Your task to perform on an android device: Go to location settings Image 0: 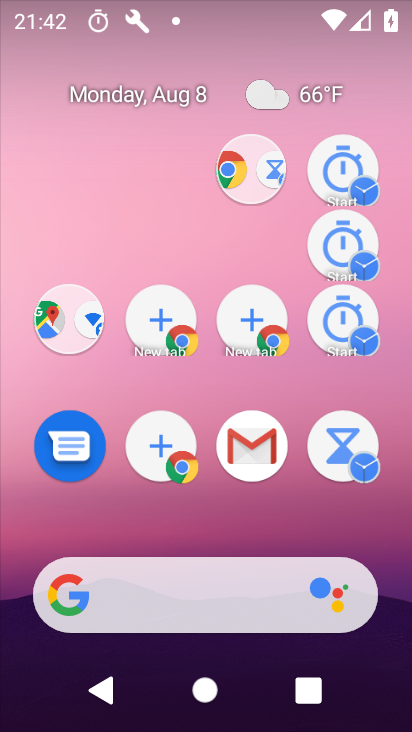
Step 0: click (236, 300)
Your task to perform on an android device: Go to location settings Image 1: 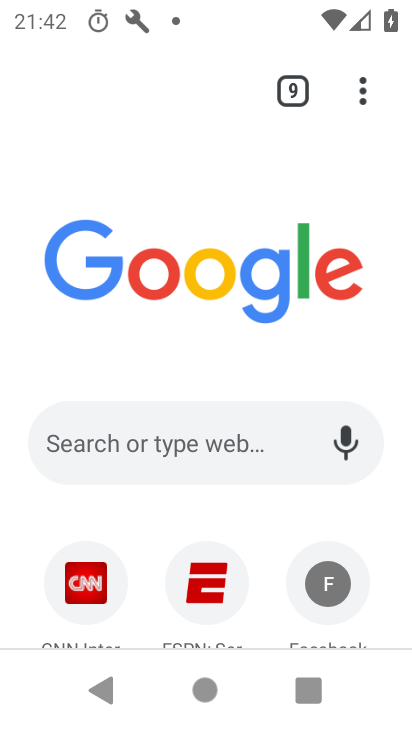
Step 1: press back button
Your task to perform on an android device: Go to location settings Image 2: 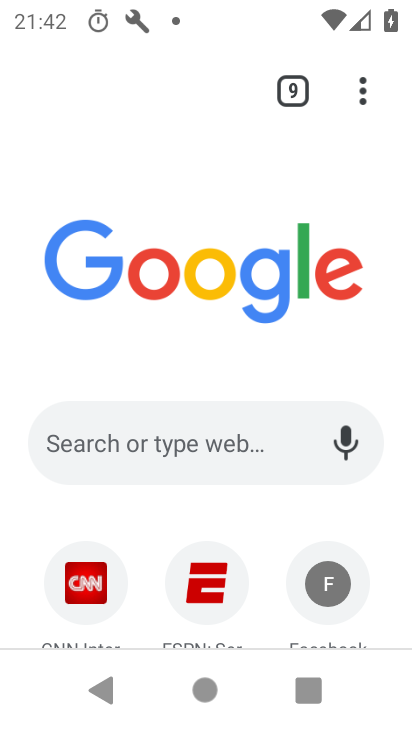
Step 2: press back button
Your task to perform on an android device: Go to location settings Image 3: 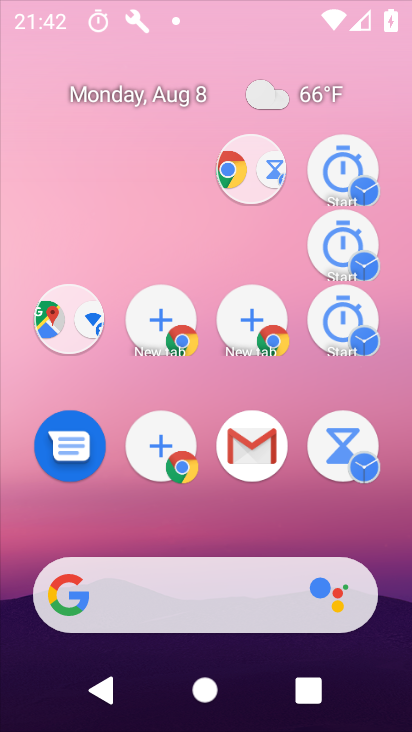
Step 3: press back button
Your task to perform on an android device: Go to location settings Image 4: 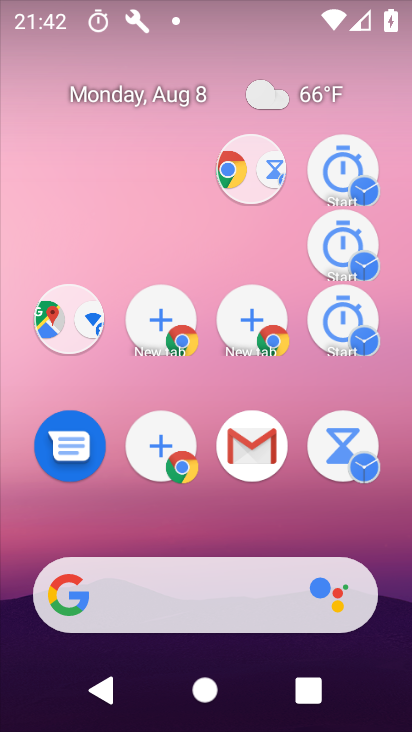
Step 4: drag from (142, 283) to (138, 246)
Your task to perform on an android device: Go to location settings Image 5: 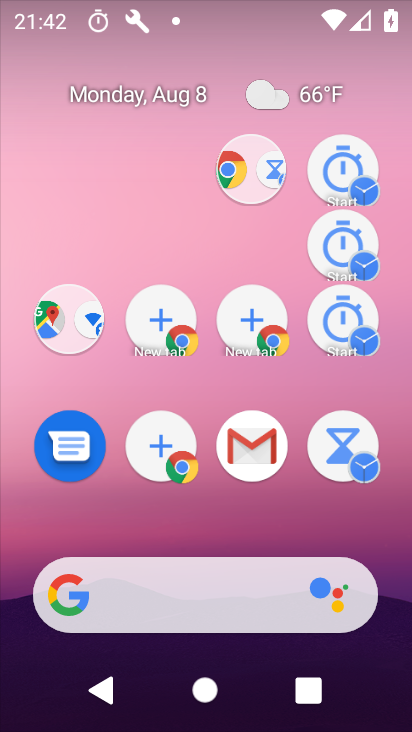
Step 5: drag from (249, 539) to (187, 32)
Your task to perform on an android device: Go to location settings Image 6: 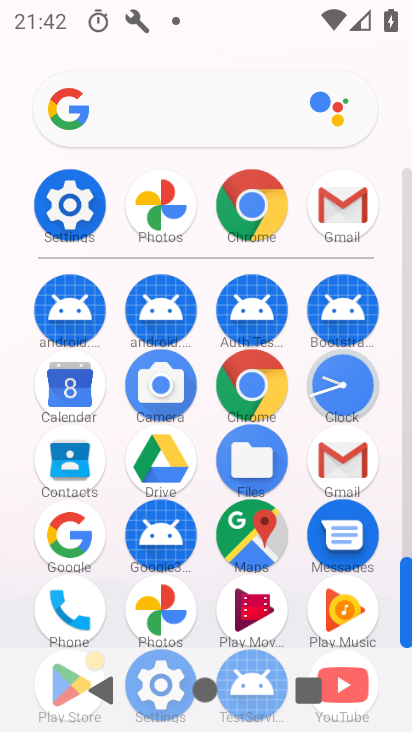
Step 6: click (82, 208)
Your task to perform on an android device: Go to location settings Image 7: 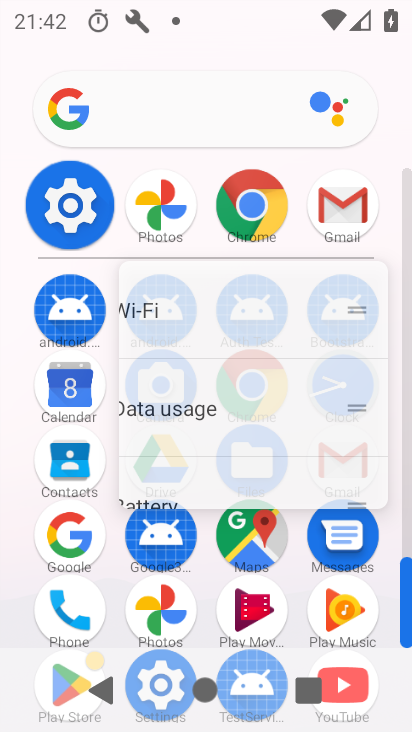
Step 7: click (81, 207)
Your task to perform on an android device: Go to location settings Image 8: 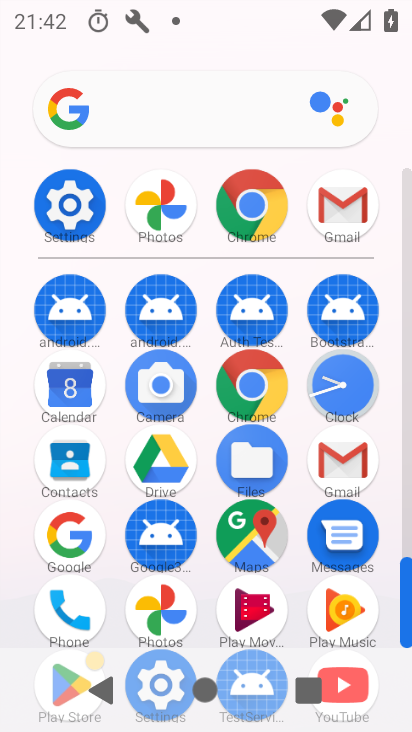
Step 8: click (86, 211)
Your task to perform on an android device: Go to location settings Image 9: 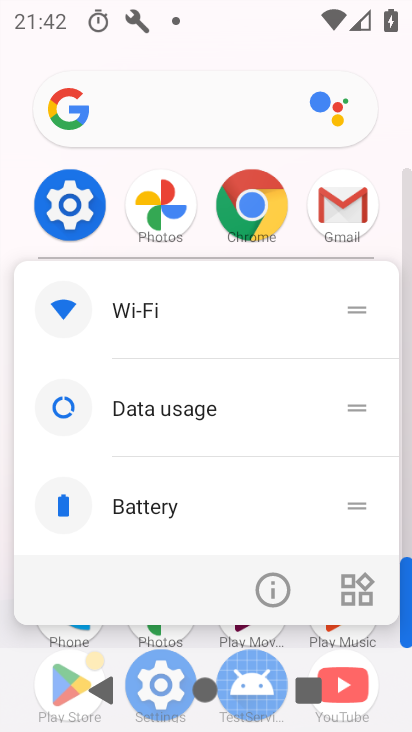
Step 9: click (59, 218)
Your task to perform on an android device: Go to location settings Image 10: 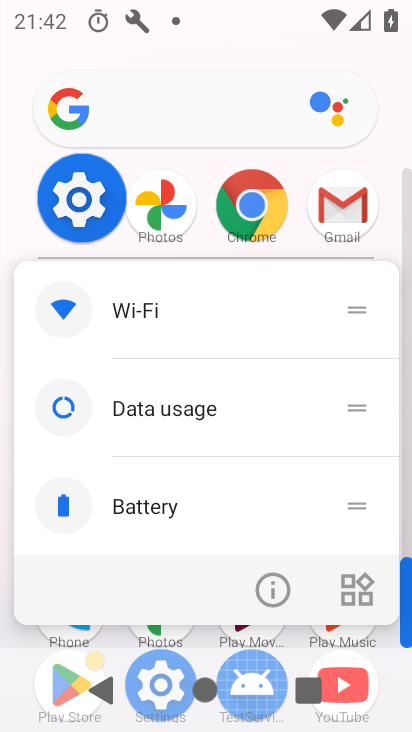
Step 10: click (72, 210)
Your task to perform on an android device: Go to location settings Image 11: 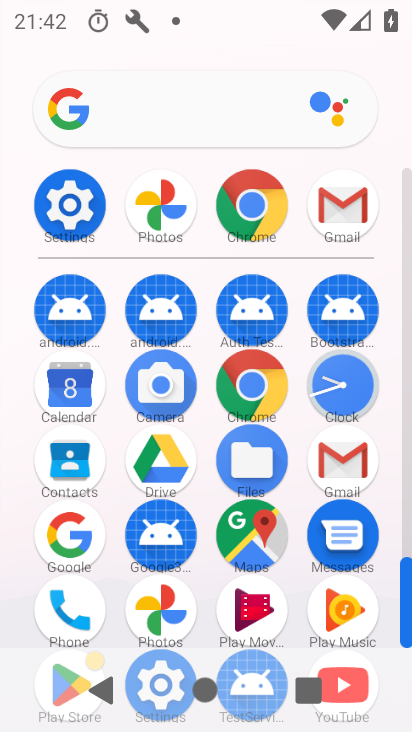
Step 11: click (75, 212)
Your task to perform on an android device: Go to location settings Image 12: 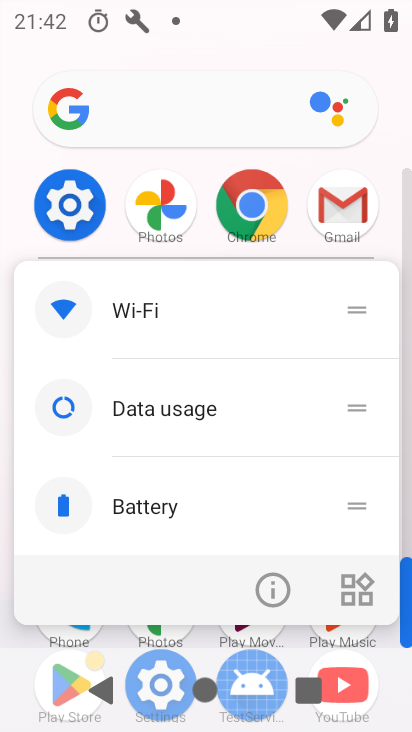
Step 12: click (153, 305)
Your task to perform on an android device: Go to location settings Image 13: 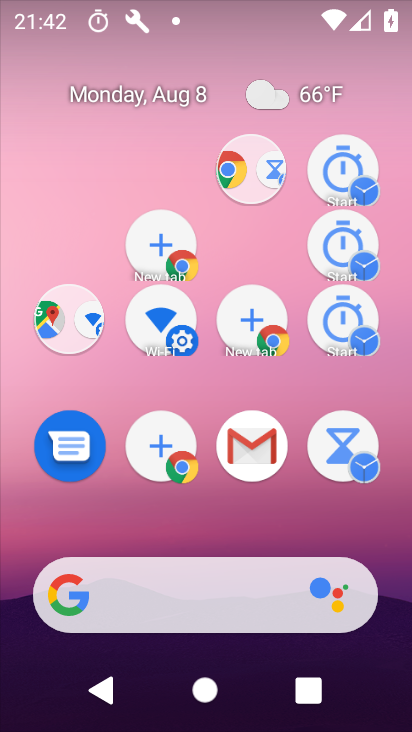
Step 13: drag from (216, 235) to (191, 68)
Your task to perform on an android device: Go to location settings Image 14: 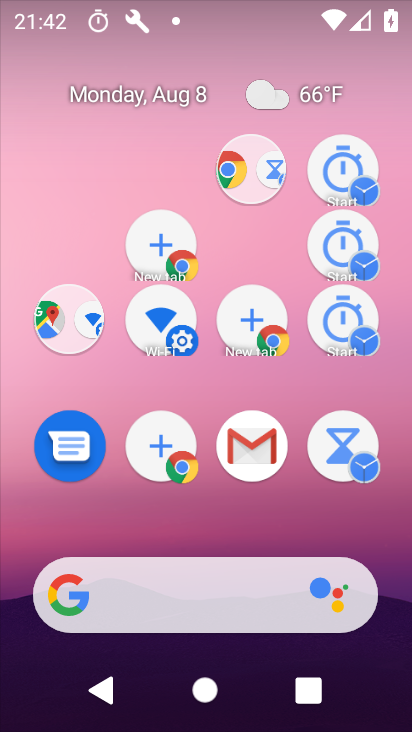
Step 14: drag from (245, 385) to (212, 97)
Your task to perform on an android device: Go to location settings Image 15: 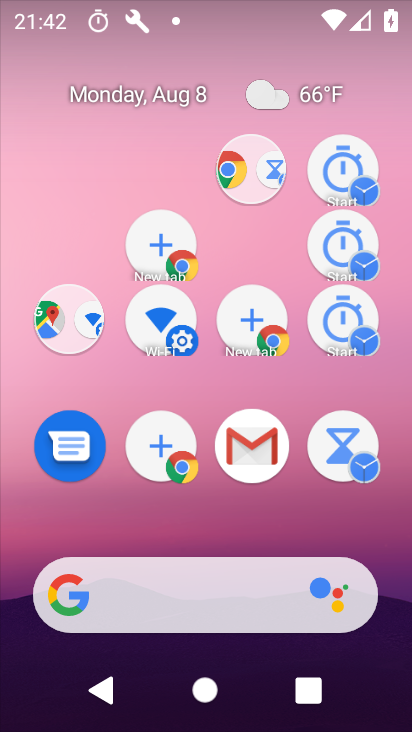
Step 15: drag from (231, 522) to (189, 75)
Your task to perform on an android device: Go to location settings Image 16: 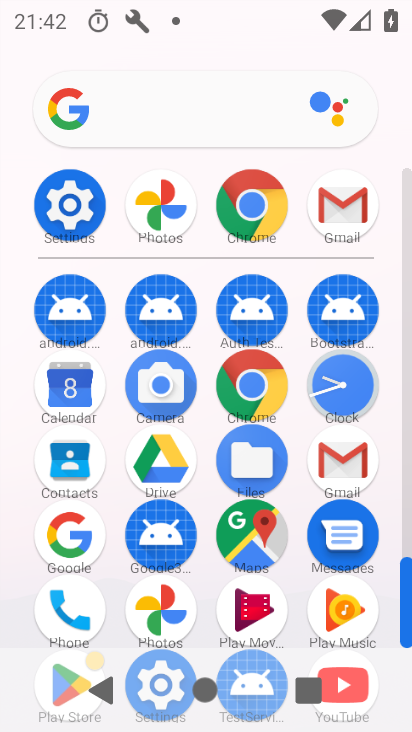
Step 16: drag from (243, 497) to (222, 67)
Your task to perform on an android device: Go to location settings Image 17: 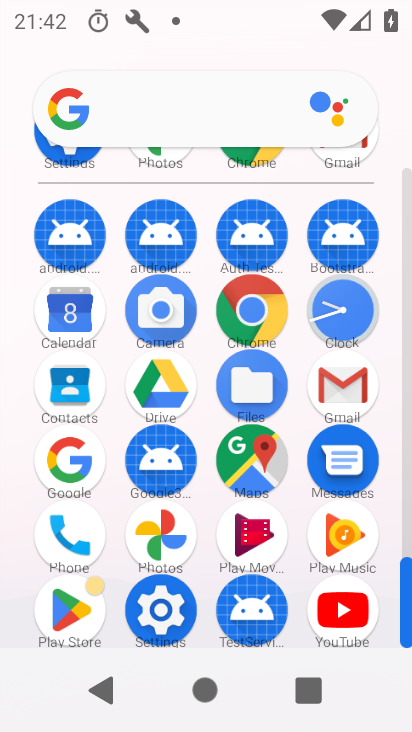
Step 17: click (157, 624)
Your task to perform on an android device: Go to location settings Image 18: 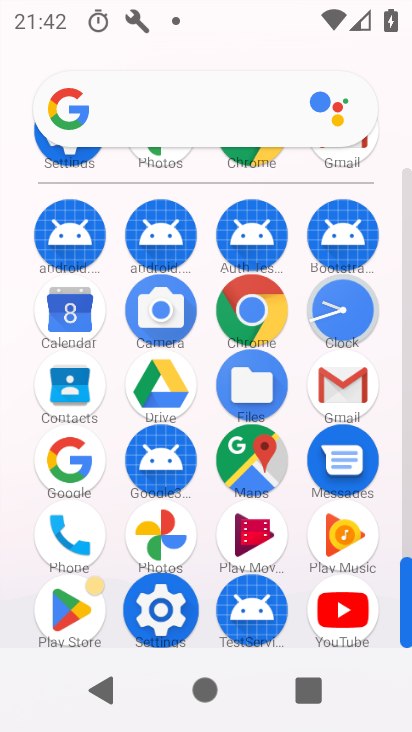
Step 18: click (159, 627)
Your task to perform on an android device: Go to location settings Image 19: 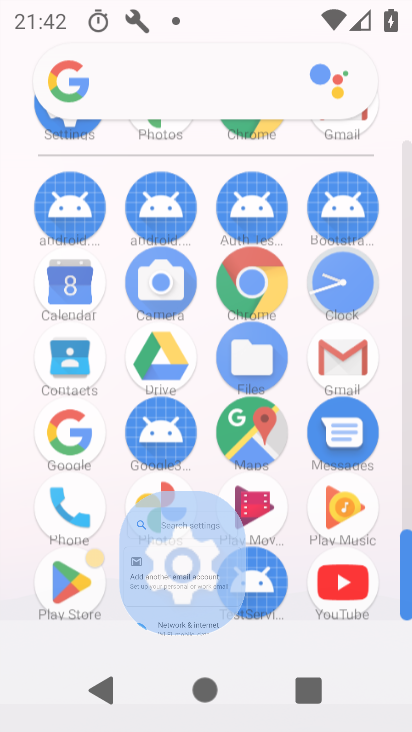
Step 19: click (162, 607)
Your task to perform on an android device: Go to location settings Image 20: 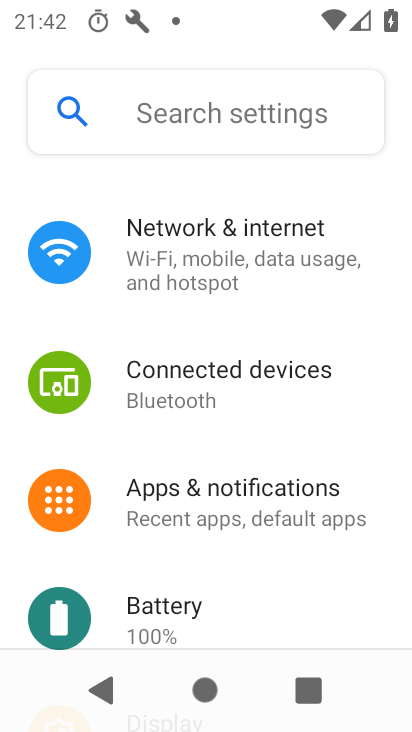
Step 20: click (162, 607)
Your task to perform on an android device: Go to location settings Image 21: 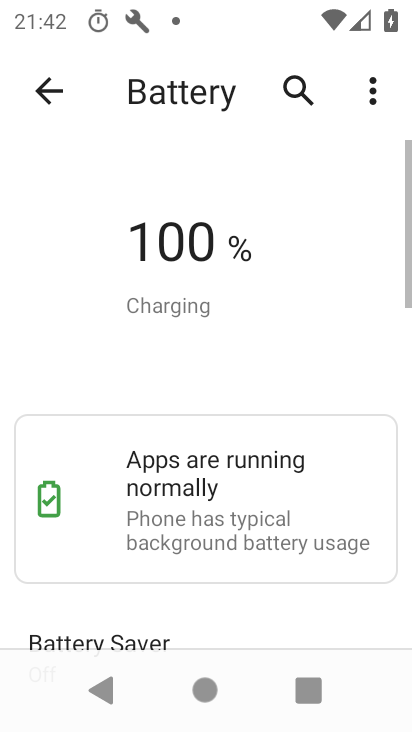
Step 21: click (42, 97)
Your task to perform on an android device: Go to location settings Image 22: 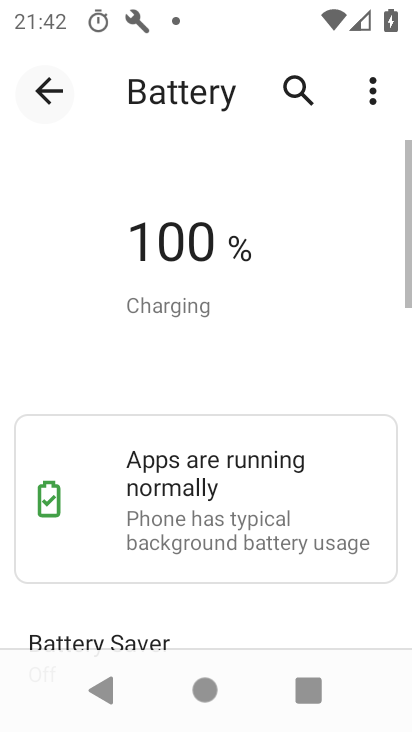
Step 22: click (45, 90)
Your task to perform on an android device: Go to location settings Image 23: 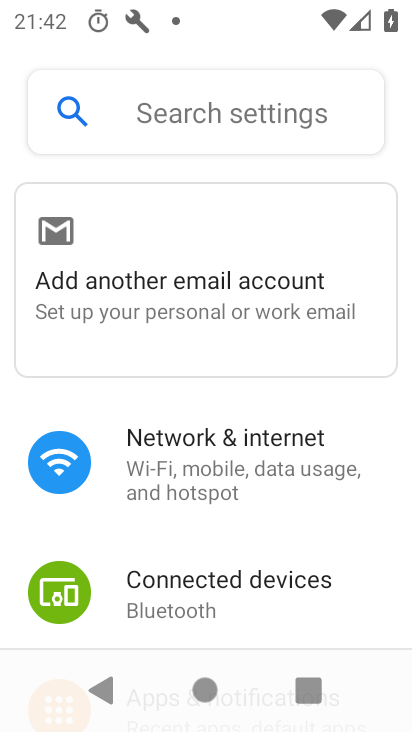
Step 23: drag from (198, 531) to (227, 260)
Your task to perform on an android device: Go to location settings Image 24: 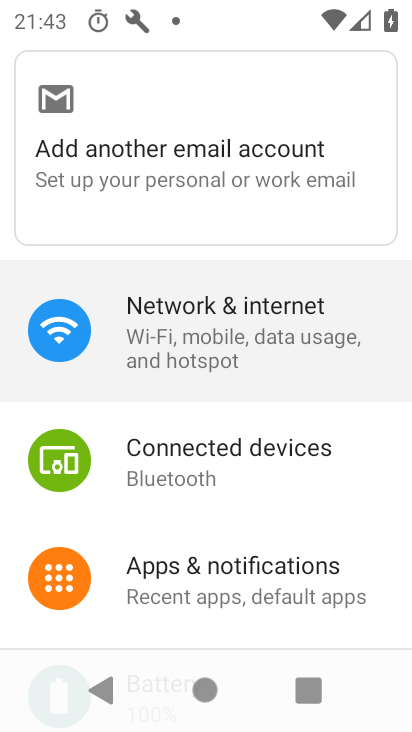
Step 24: drag from (227, 451) to (227, 256)
Your task to perform on an android device: Go to location settings Image 25: 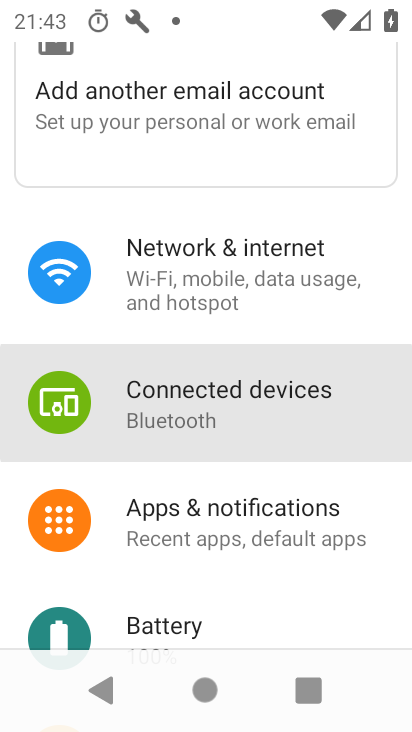
Step 25: drag from (222, 446) to (211, 229)
Your task to perform on an android device: Go to location settings Image 26: 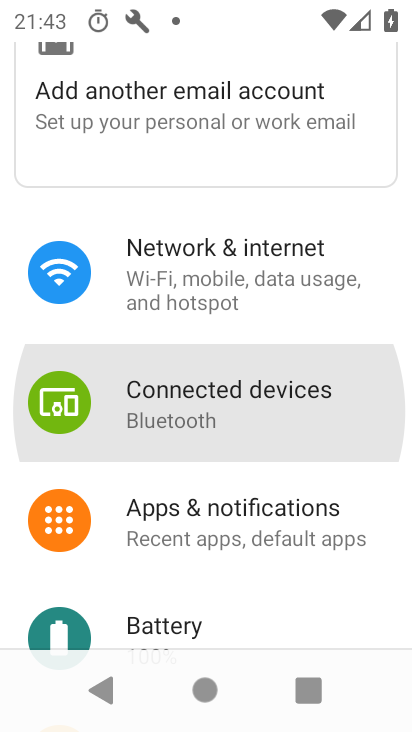
Step 26: drag from (213, 488) to (220, 266)
Your task to perform on an android device: Go to location settings Image 27: 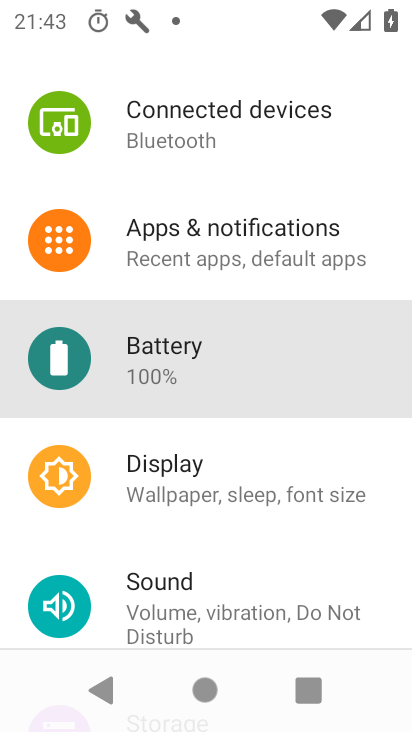
Step 27: drag from (235, 472) to (211, 233)
Your task to perform on an android device: Go to location settings Image 28: 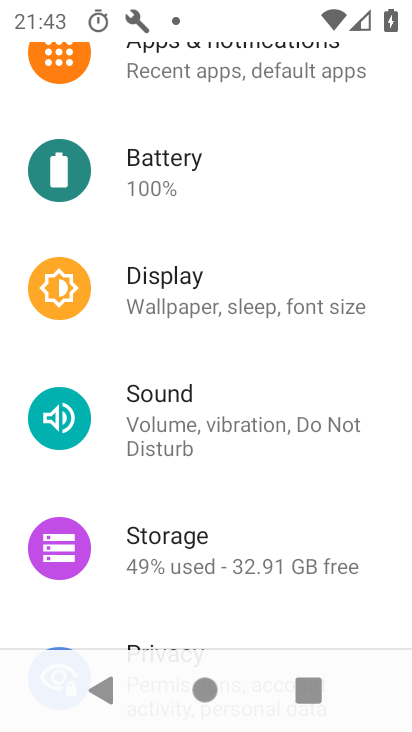
Step 28: drag from (202, 461) to (167, 237)
Your task to perform on an android device: Go to location settings Image 29: 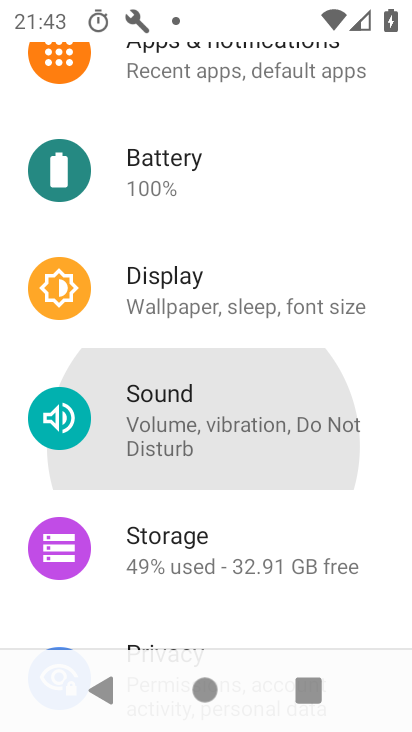
Step 29: drag from (212, 460) to (198, 186)
Your task to perform on an android device: Go to location settings Image 30: 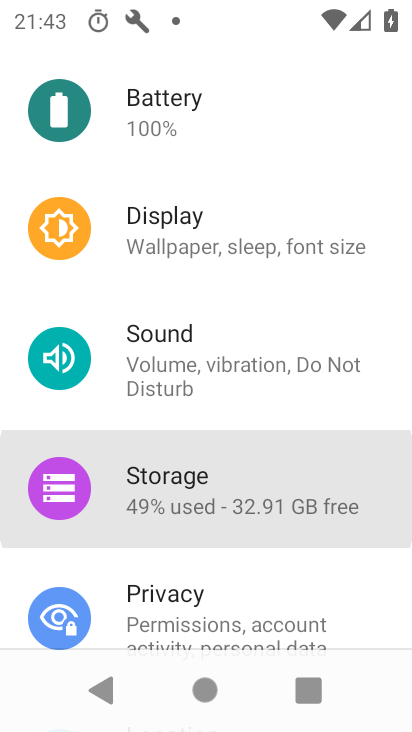
Step 30: drag from (243, 428) to (238, 253)
Your task to perform on an android device: Go to location settings Image 31: 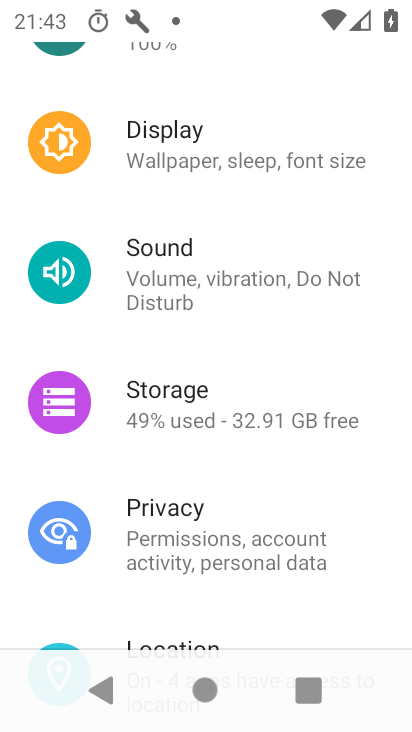
Step 31: drag from (202, 481) to (191, 274)
Your task to perform on an android device: Go to location settings Image 32: 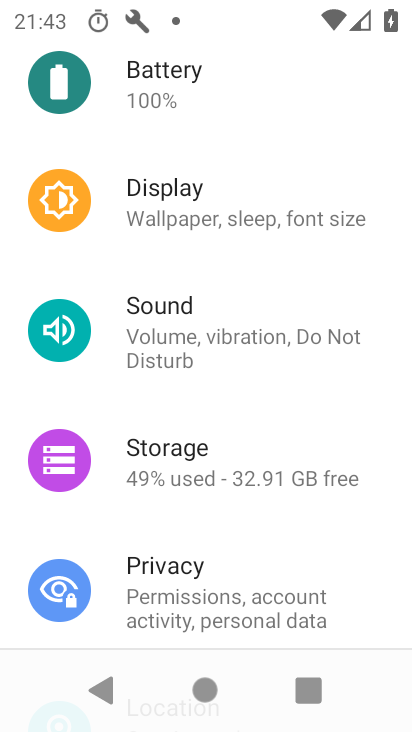
Step 32: drag from (160, 502) to (132, 221)
Your task to perform on an android device: Go to location settings Image 33: 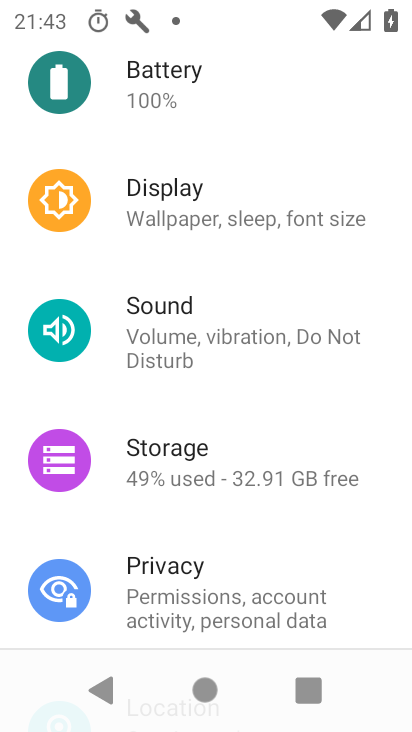
Step 33: drag from (145, 474) to (152, 301)
Your task to perform on an android device: Go to location settings Image 34: 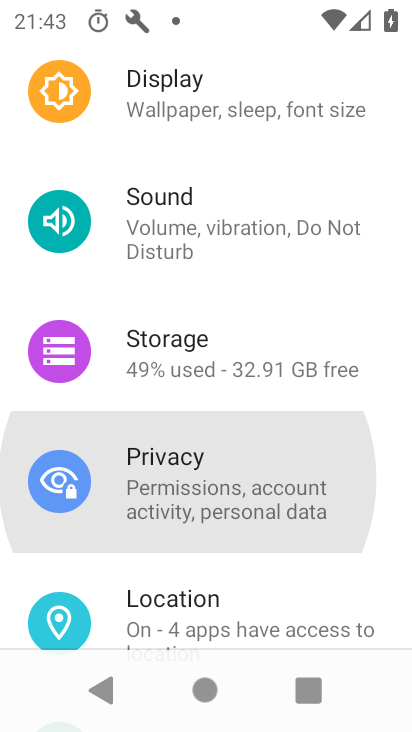
Step 34: drag from (163, 517) to (188, 256)
Your task to perform on an android device: Go to location settings Image 35: 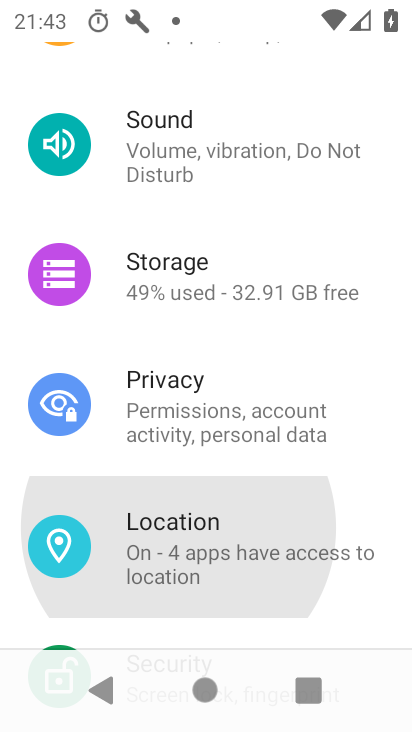
Step 35: drag from (213, 473) to (221, 336)
Your task to perform on an android device: Go to location settings Image 36: 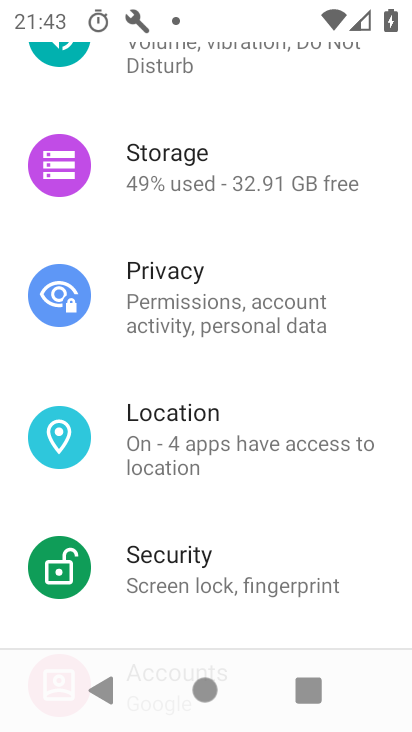
Step 36: click (181, 411)
Your task to perform on an android device: Go to location settings Image 37: 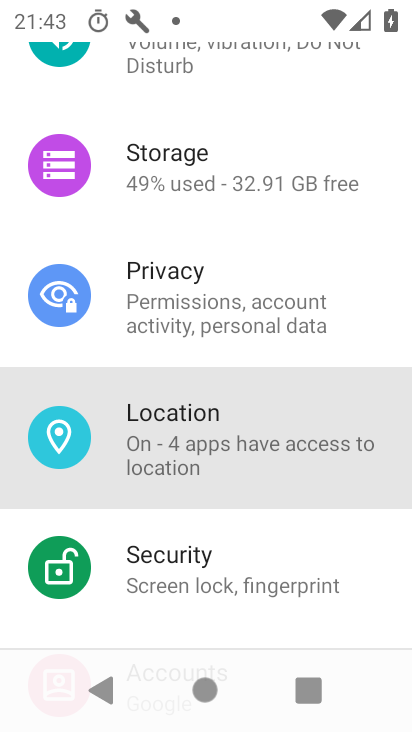
Step 37: click (185, 418)
Your task to perform on an android device: Go to location settings Image 38: 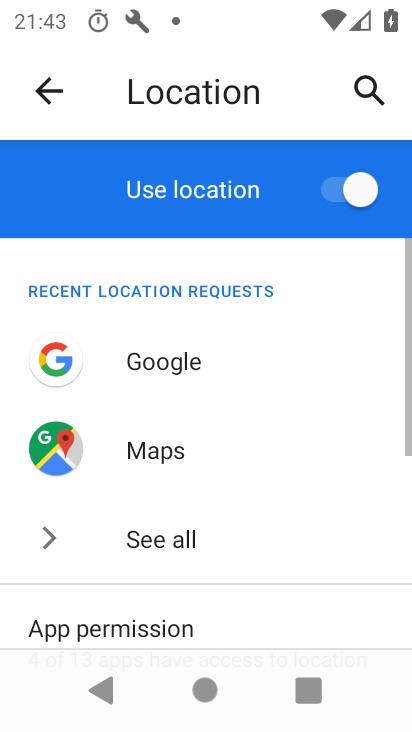
Step 38: drag from (186, 554) to (222, 316)
Your task to perform on an android device: Go to location settings Image 39: 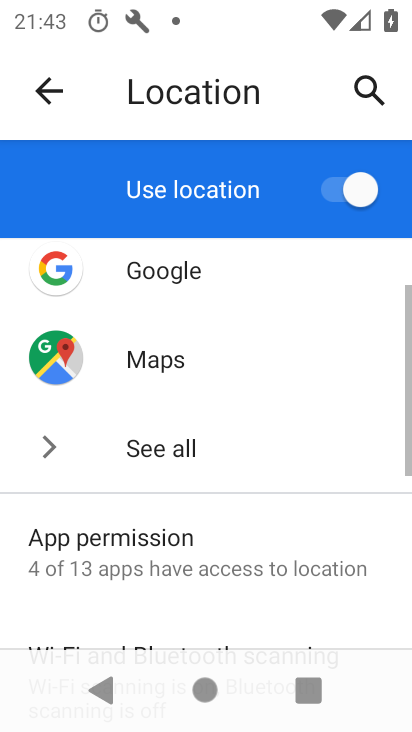
Step 39: drag from (240, 486) to (248, 271)
Your task to perform on an android device: Go to location settings Image 40: 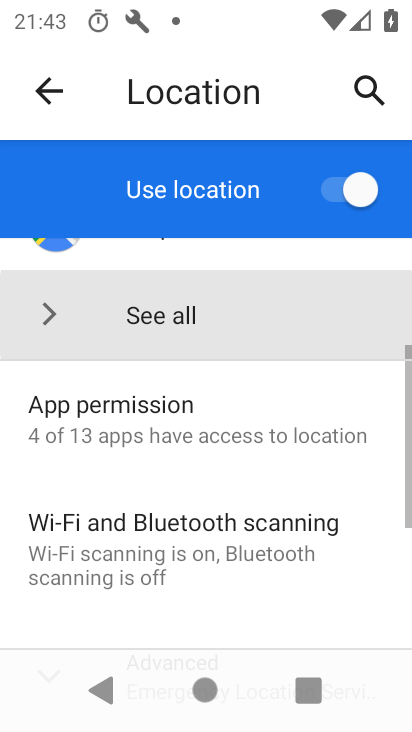
Step 40: drag from (242, 462) to (234, 213)
Your task to perform on an android device: Go to location settings Image 41: 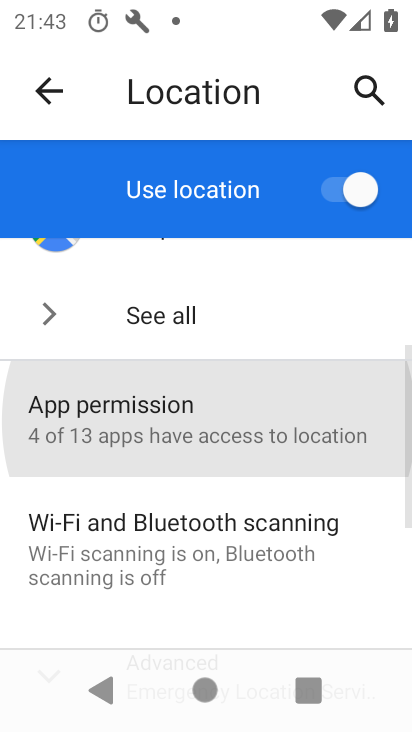
Step 41: drag from (210, 515) to (211, 188)
Your task to perform on an android device: Go to location settings Image 42: 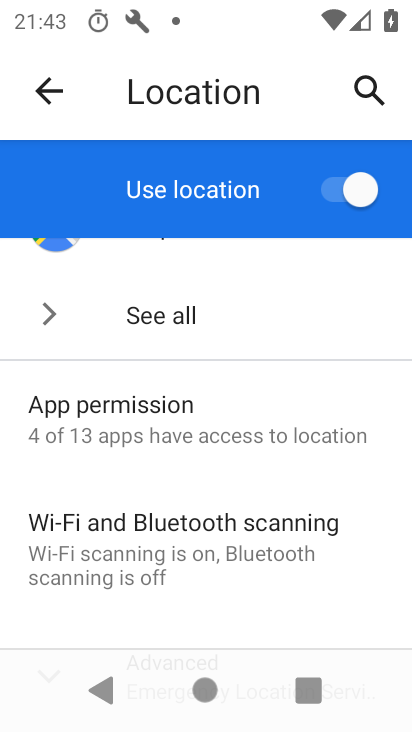
Step 42: drag from (220, 508) to (201, 252)
Your task to perform on an android device: Go to location settings Image 43: 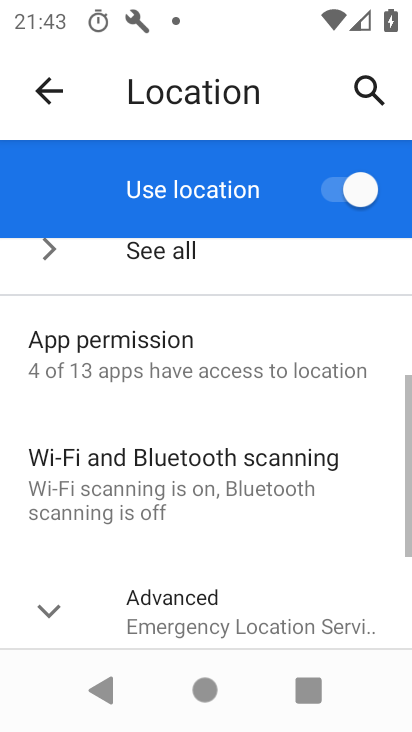
Step 43: drag from (255, 327) to (255, 192)
Your task to perform on an android device: Go to location settings Image 44: 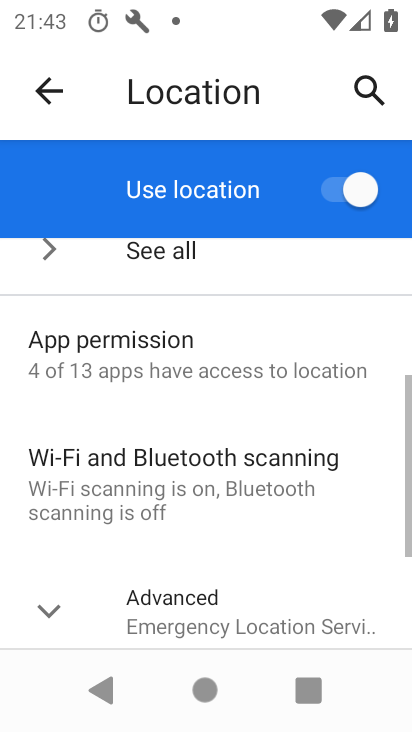
Step 44: drag from (255, 474) to (252, 191)
Your task to perform on an android device: Go to location settings Image 45: 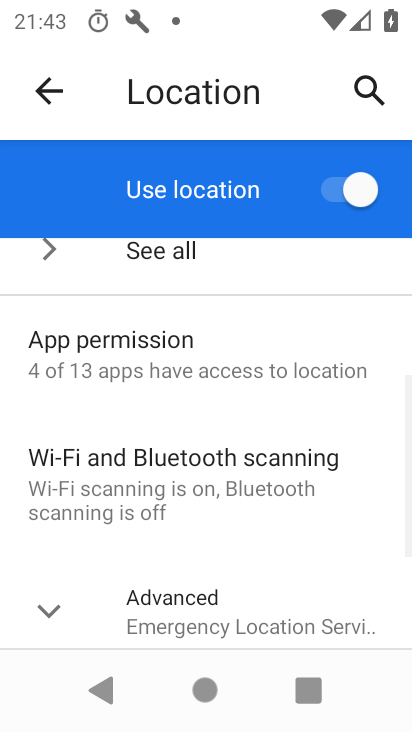
Step 45: drag from (266, 507) to (249, 200)
Your task to perform on an android device: Go to location settings Image 46: 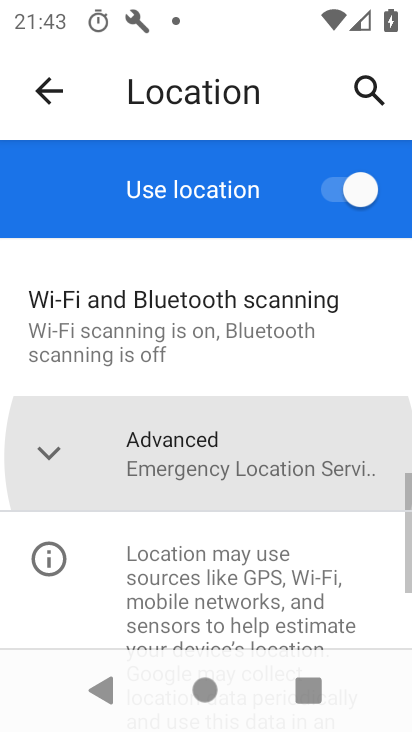
Step 46: drag from (268, 494) to (248, 251)
Your task to perform on an android device: Go to location settings Image 47: 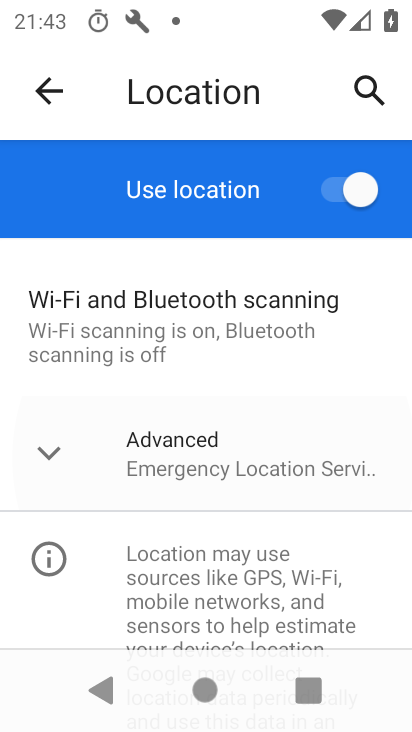
Step 47: drag from (251, 506) to (239, 233)
Your task to perform on an android device: Go to location settings Image 48: 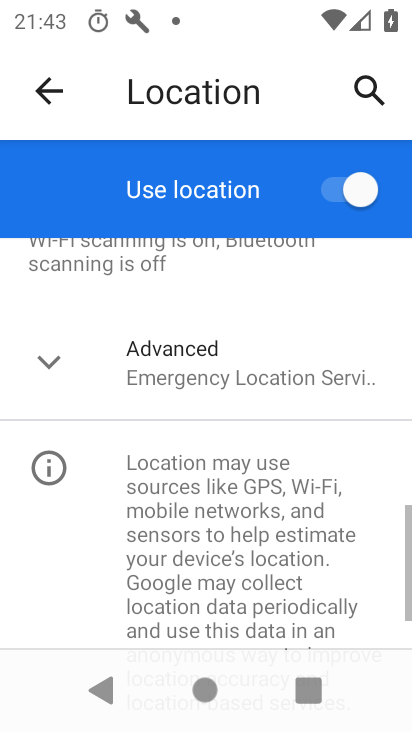
Step 48: drag from (228, 543) to (214, 318)
Your task to perform on an android device: Go to location settings Image 49: 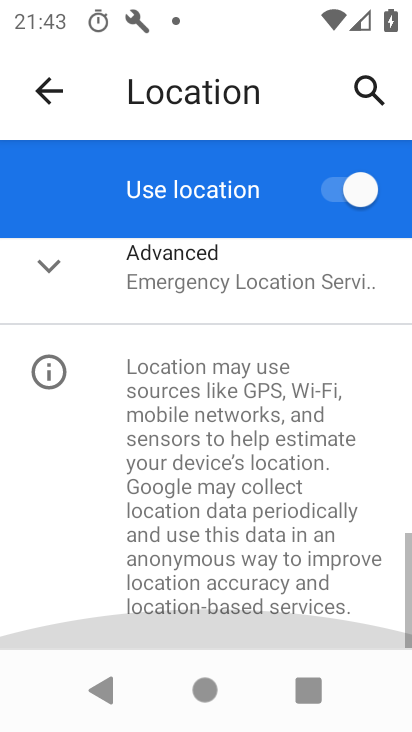
Step 49: drag from (266, 532) to (266, 265)
Your task to perform on an android device: Go to location settings Image 50: 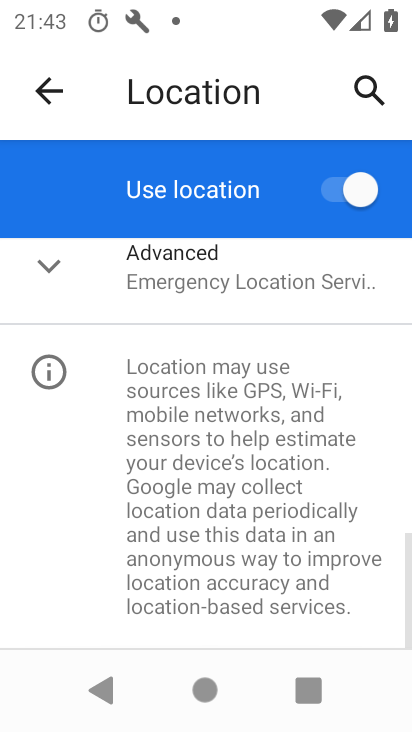
Step 50: drag from (235, 537) to (219, 301)
Your task to perform on an android device: Go to location settings Image 51: 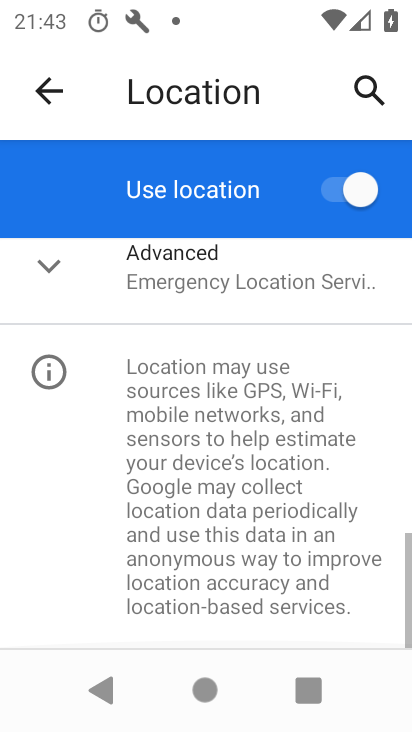
Step 51: drag from (256, 541) to (279, 219)
Your task to perform on an android device: Go to location settings Image 52: 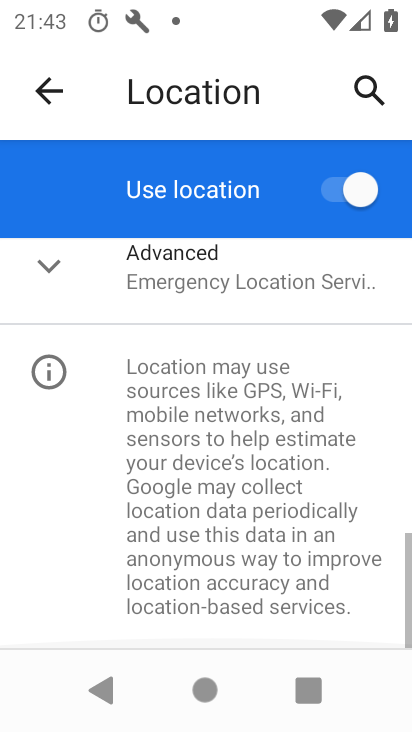
Step 52: drag from (248, 525) to (243, 284)
Your task to perform on an android device: Go to location settings Image 53: 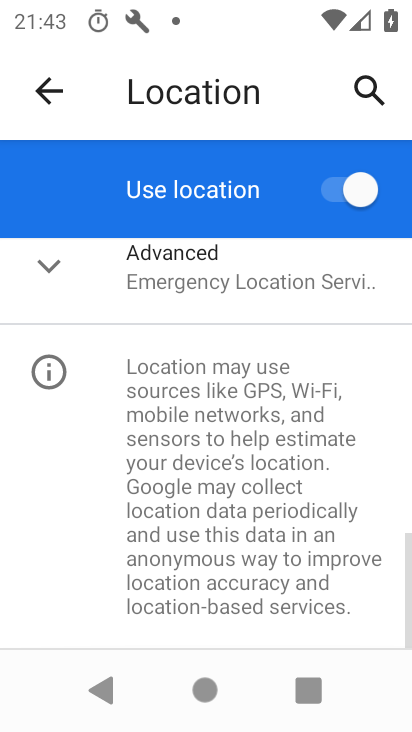
Step 53: drag from (223, 442) to (211, 246)
Your task to perform on an android device: Go to location settings Image 54: 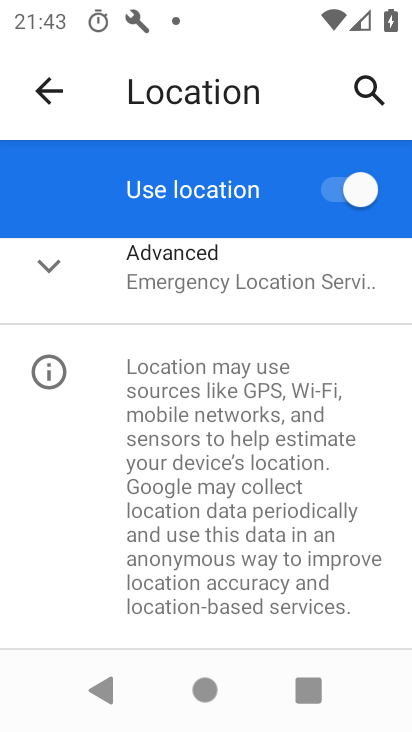
Step 54: drag from (198, 389) to (195, 242)
Your task to perform on an android device: Go to location settings Image 55: 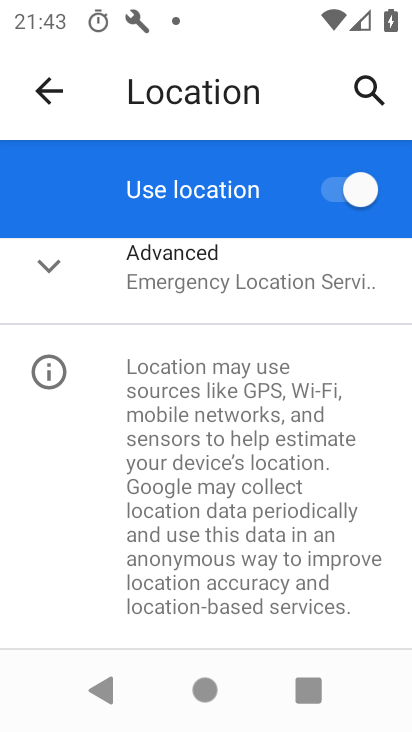
Step 55: drag from (192, 436) to (192, 269)
Your task to perform on an android device: Go to location settings Image 56: 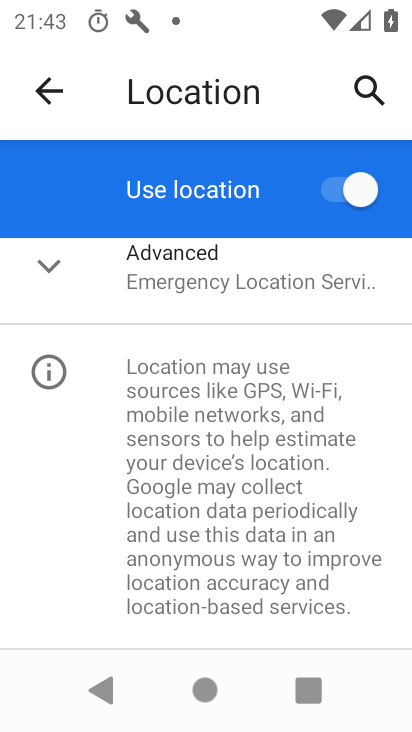
Step 56: click (192, 269)
Your task to perform on an android device: Go to location settings Image 57: 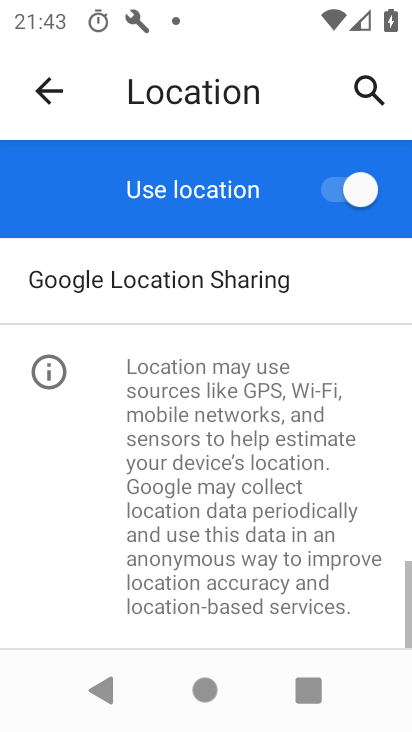
Step 57: task complete